Your task to perform on an android device: turn on showing notifications on the lock screen Image 0: 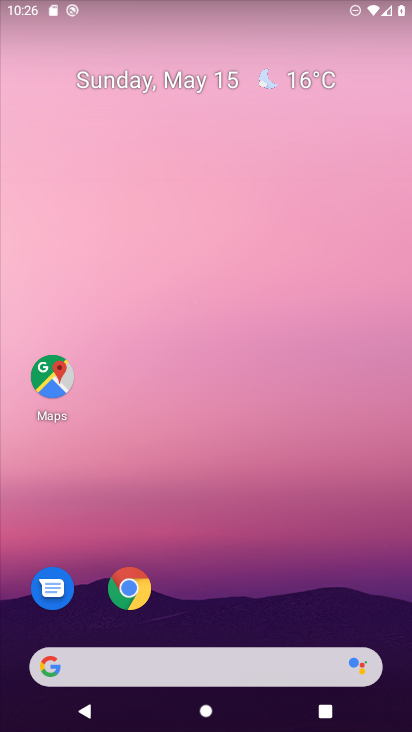
Step 0: drag from (178, 615) to (248, 0)
Your task to perform on an android device: turn on showing notifications on the lock screen Image 1: 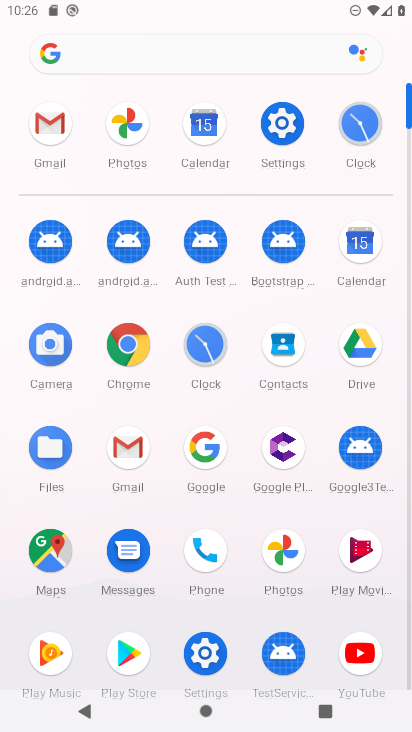
Step 1: click (276, 119)
Your task to perform on an android device: turn on showing notifications on the lock screen Image 2: 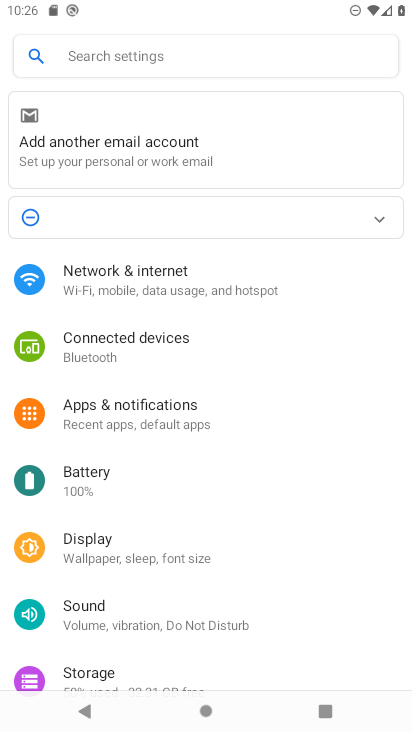
Step 2: click (152, 415)
Your task to perform on an android device: turn on showing notifications on the lock screen Image 3: 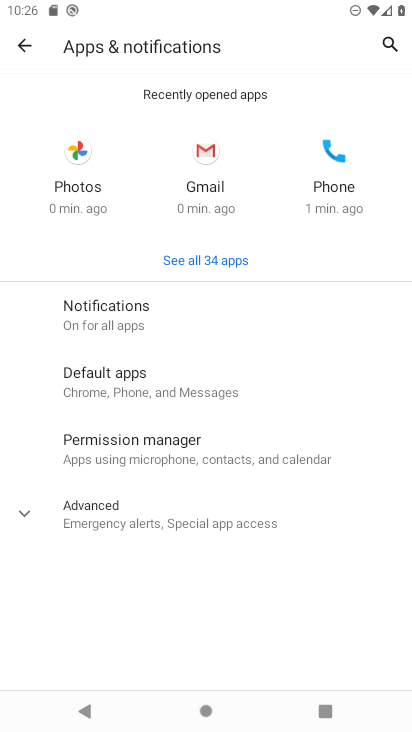
Step 3: click (152, 309)
Your task to perform on an android device: turn on showing notifications on the lock screen Image 4: 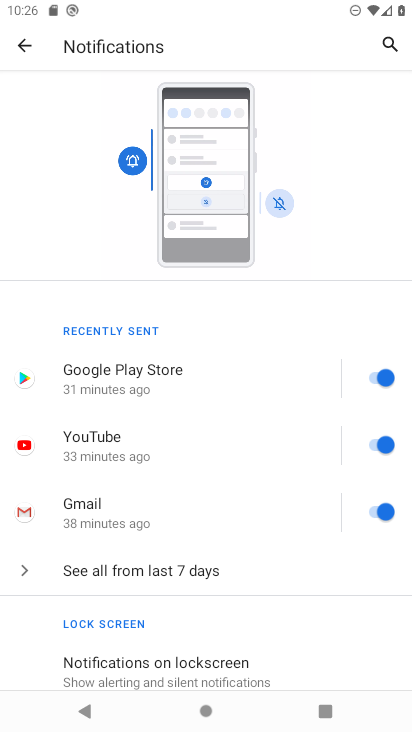
Step 4: click (114, 661)
Your task to perform on an android device: turn on showing notifications on the lock screen Image 5: 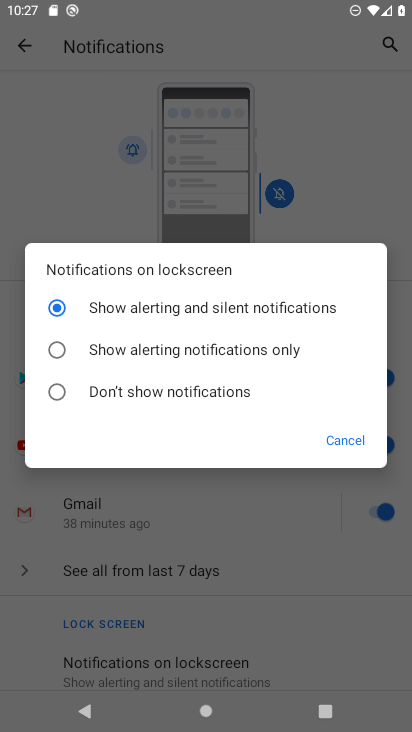
Step 5: task complete